Your task to perform on an android device: Play the last video I watched on Youtube Image 0: 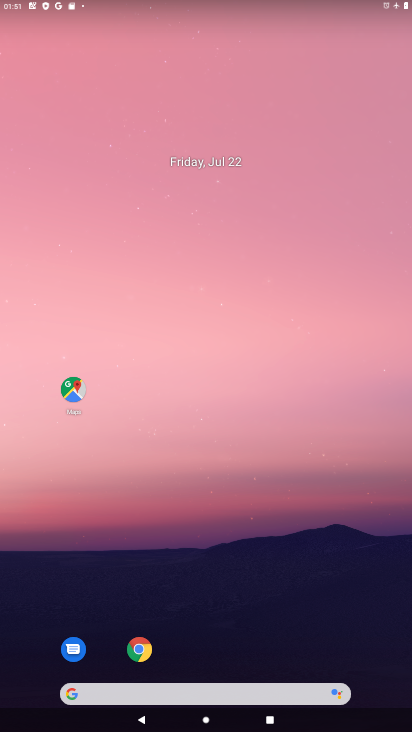
Step 0: drag from (282, 614) to (262, 130)
Your task to perform on an android device: Play the last video I watched on Youtube Image 1: 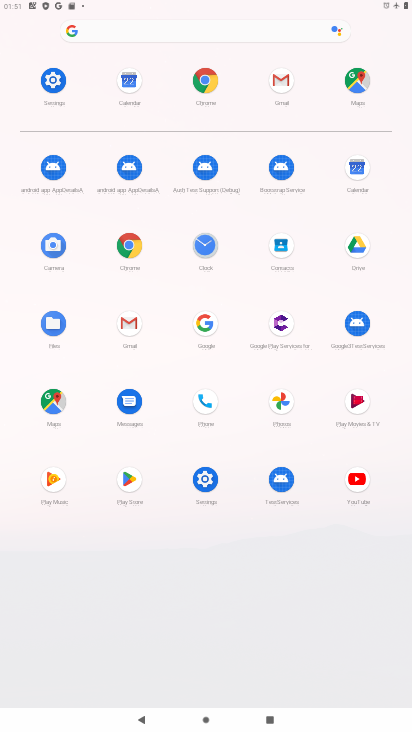
Step 1: click (357, 478)
Your task to perform on an android device: Play the last video I watched on Youtube Image 2: 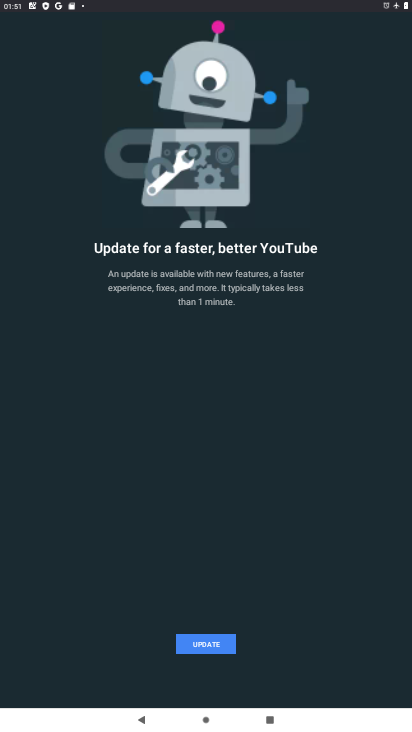
Step 2: task complete